Your task to perform on an android device: Open Google Maps and go to "Timeline" Image 0: 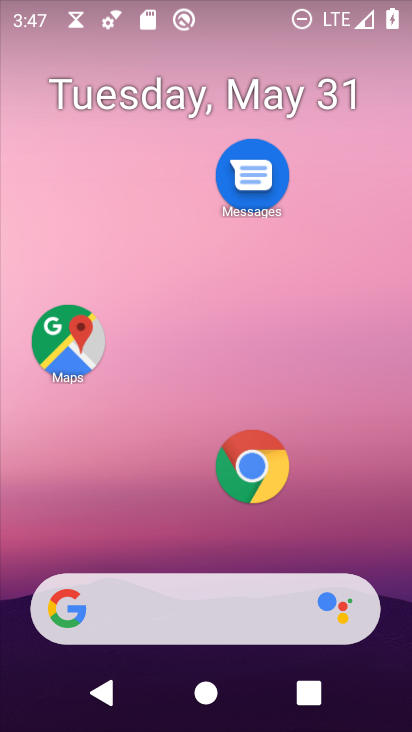
Step 0: drag from (93, 522) to (187, 61)
Your task to perform on an android device: Open Google Maps and go to "Timeline" Image 1: 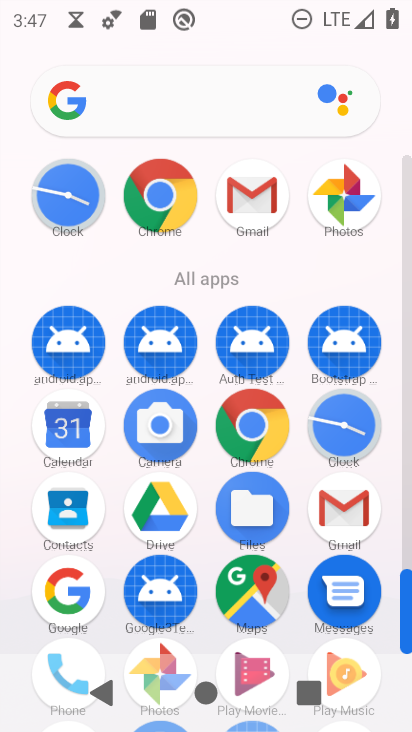
Step 1: click (244, 596)
Your task to perform on an android device: Open Google Maps and go to "Timeline" Image 2: 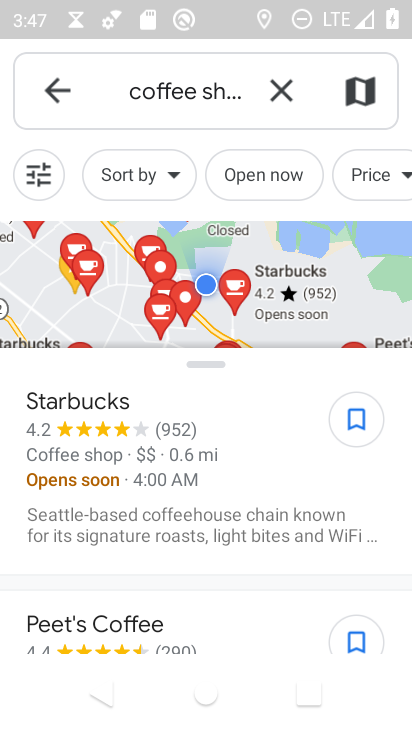
Step 2: click (61, 80)
Your task to perform on an android device: Open Google Maps and go to "Timeline" Image 3: 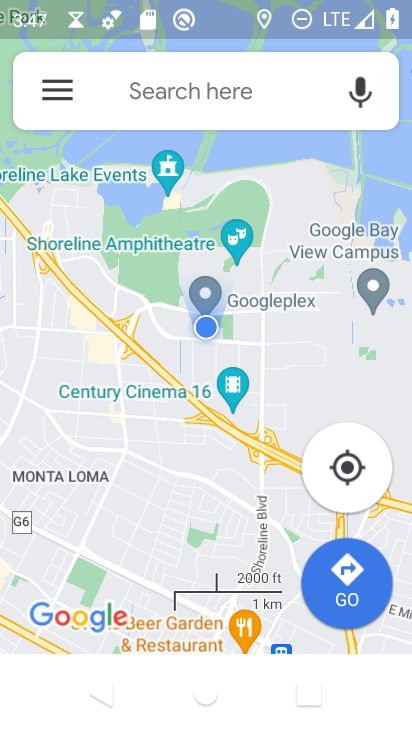
Step 3: click (55, 94)
Your task to perform on an android device: Open Google Maps and go to "Timeline" Image 4: 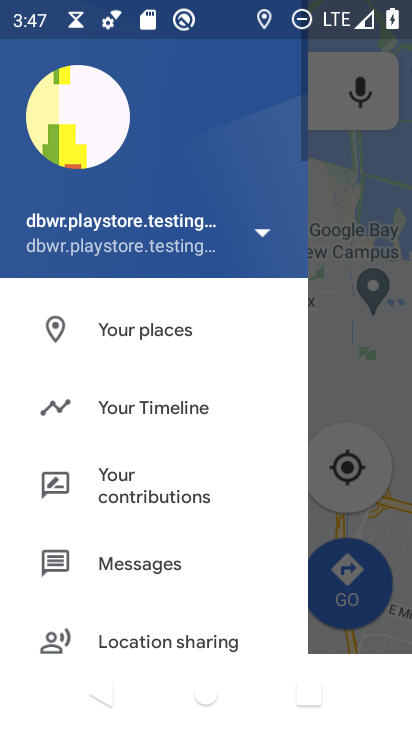
Step 4: click (160, 404)
Your task to perform on an android device: Open Google Maps and go to "Timeline" Image 5: 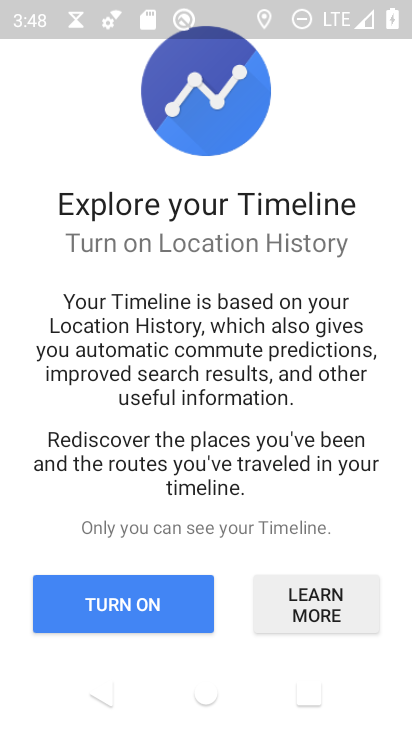
Step 5: task complete